Your task to perform on an android device: Set the phone to "Do not disturb". Image 0: 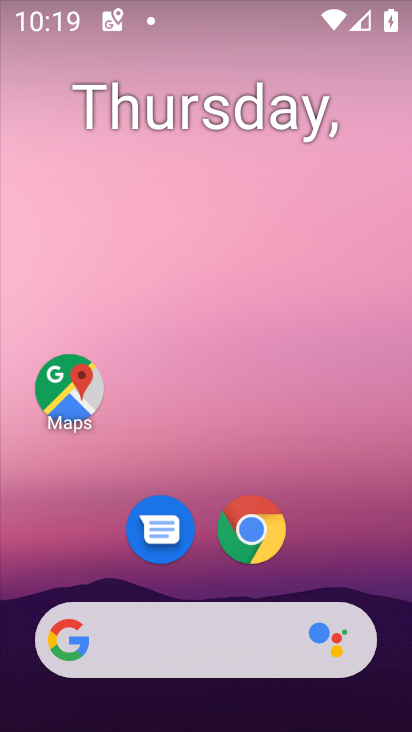
Step 0: drag from (231, 518) to (279, 0)
Your task to perform on an android device: Set the phone to "Do not disturb". Image 1: 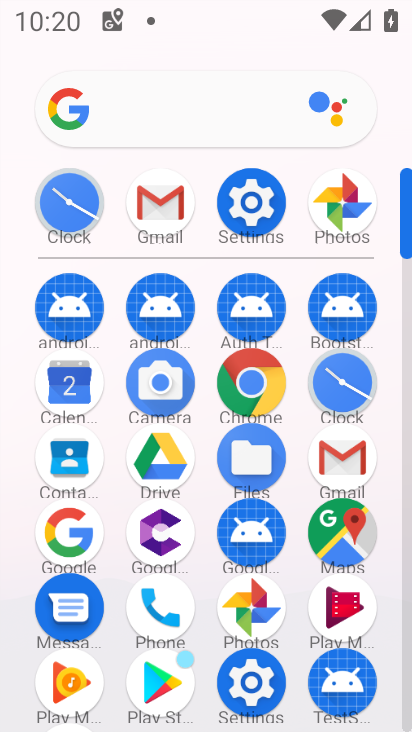
Step 1: click (259, 191)
Your task to perform on an android device: Set the phone to "Do not disturb". Image 2: 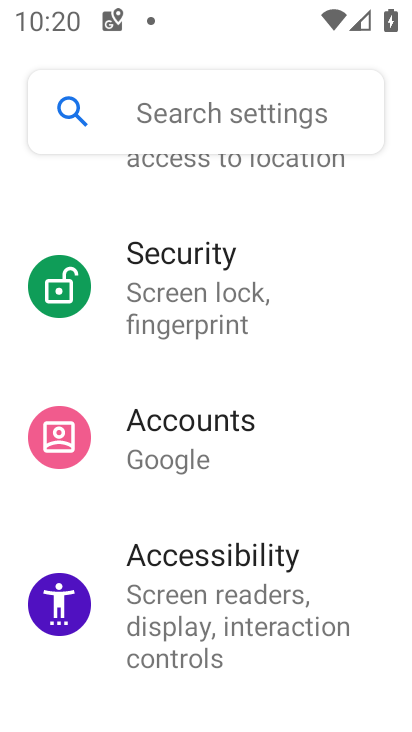
Step 2: drag from (293, 691) to (249, 175)
Your task to perform on an android device: Set the phone to "Do not disturb". Image 3: 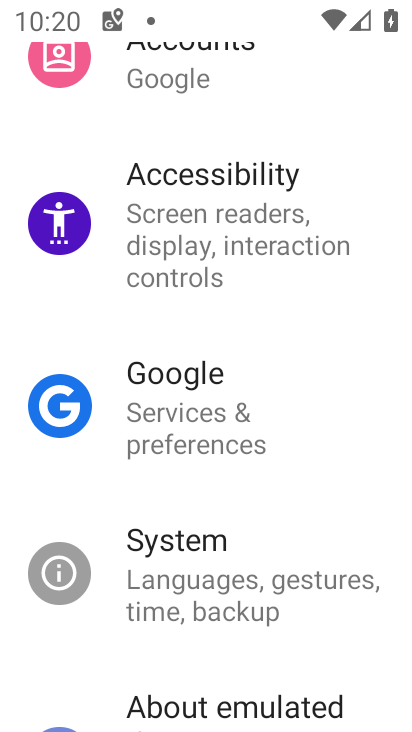
Step 3: drag from (339, 692) to (249, 187)
Your task to perform on an android device: Set the phone to "Do not disturb". Image 4: 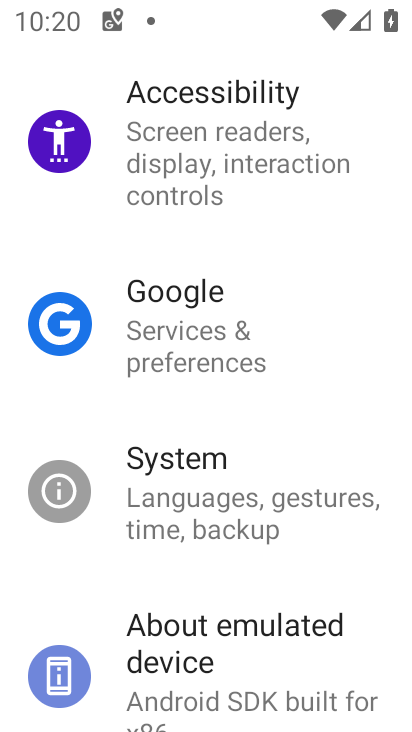
Step 4: drag from (312, 187) to (174, 597)
Your task to perform on an android device: Set the phone to "Do not disturb". Image 5: 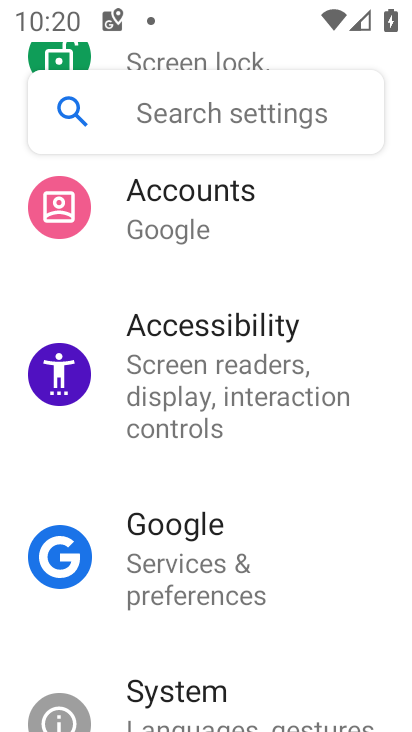
Step 5: drag from (325, 205) to (261, 609)
Your task to perform on an android device: Set the phone to "Do not disturb". Image 6: 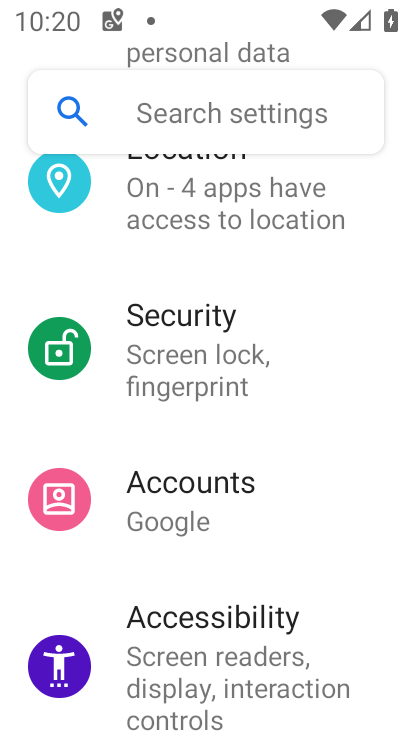
Step 6: drag from (347, 365) to (301, 691)
Your task to perform on an android device: Set the phone to "Do not disturb". Image 7: 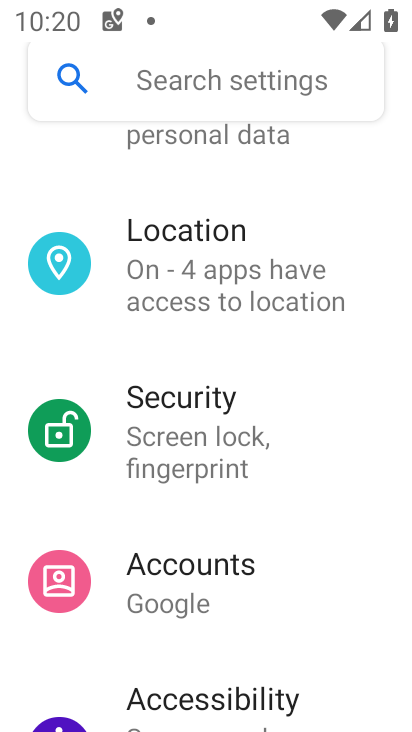
Step 7: drag from (320, 202) to (252, 722)
Your task to perform on an android device: Set the phone to "Do not disturb". Image 8: 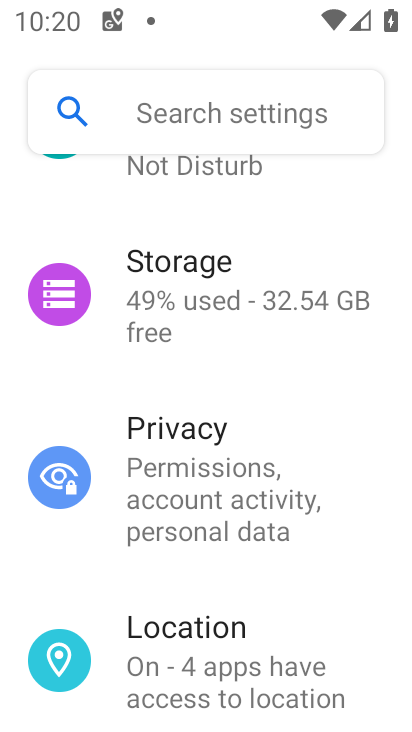
Step 8: click (277, 166)
Your task to perform on an android device: Set the phone to "Do not disturb". Image 9: 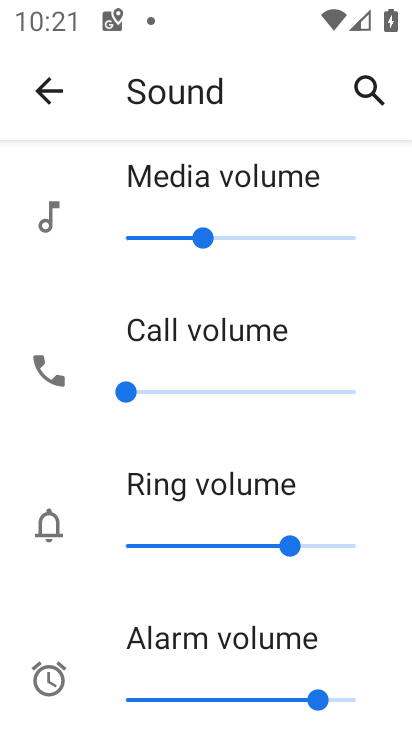
Step 9: drag from (162, 649) to (172, 106)
Your task to perform on an android device: Set the phone to "Do not disturb". Image 10: 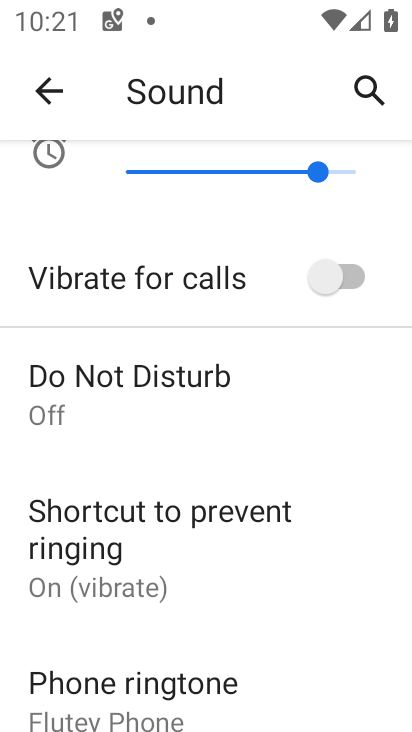
Step 10: click (191, 386)
Your task to perform on an android device: Set the phone to "Do not disturb". Image 11: 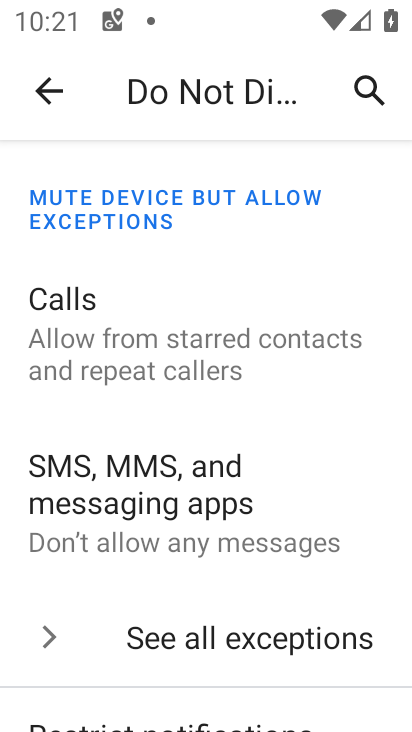
Step 11: drag from (250, 621) to (253, 165)
Your task to perform on an android device: Set the phone to "Do not disturb". Image 12: 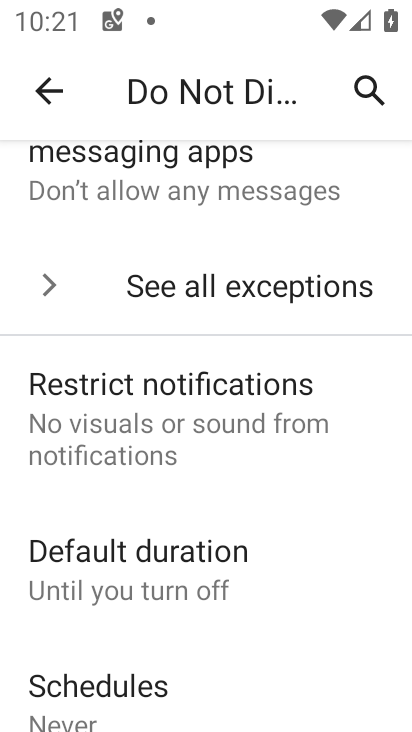
Step 12: drag from (194, 679) to (239, 95)
Your task to perform on an android device: Set the phone to "Do not disturb". Image 13: 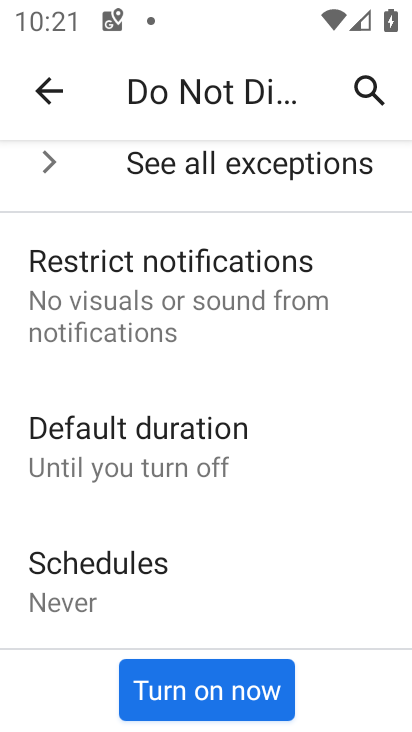
Step 13: click (225, 699)
Your task to perform on an android device: Set the phone to "Do not disturb". Image 14: 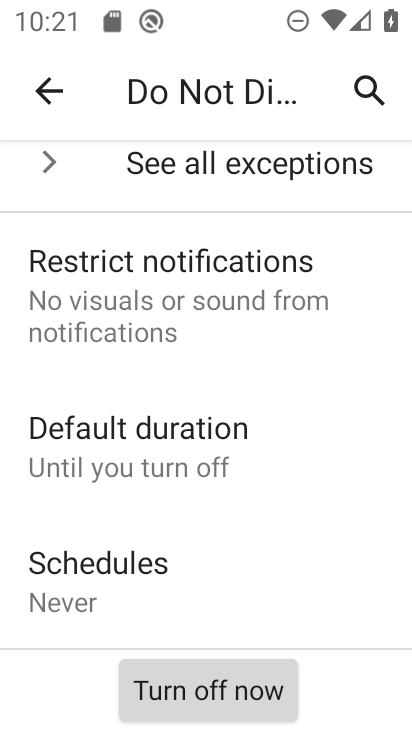
Step 14: task complete